Your task to perform on an android device: turn off wifi Image 0: 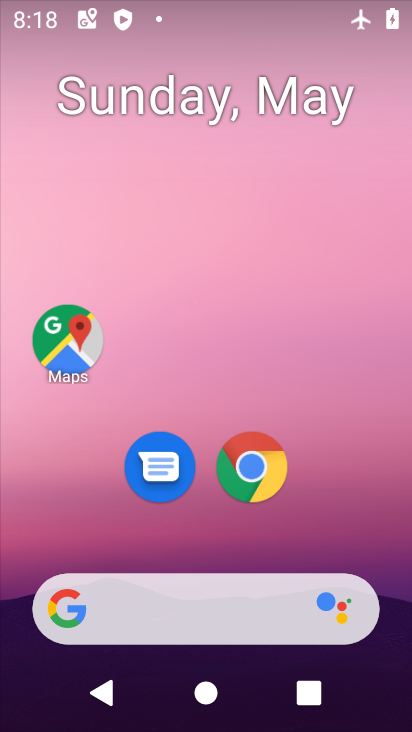
Step 0: drag from (175, 14) to (331, 602)
Your task to perform on an android device: turn off wifi Image 1: 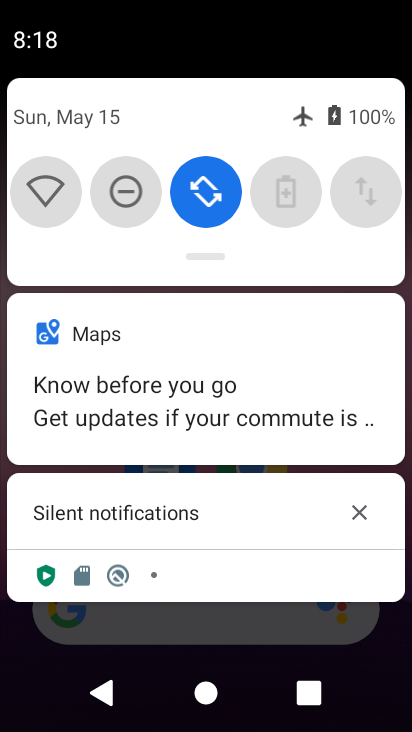
Step 1: task complete